Your task to perform on an android device: Open eBay Image 0: 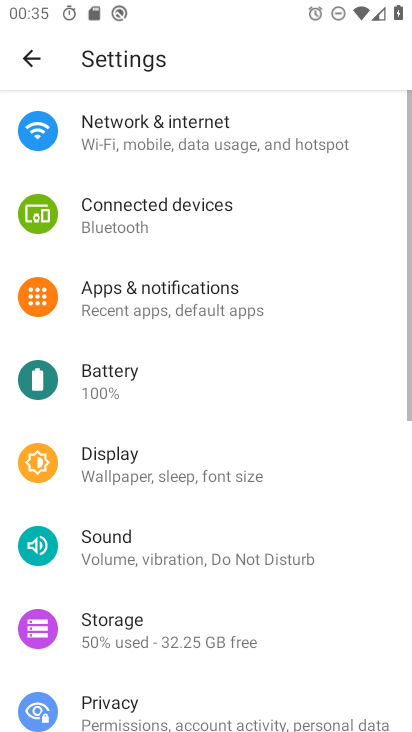
Step 0: press home button
Your task to perform on an android device: Open eBay Image 1: 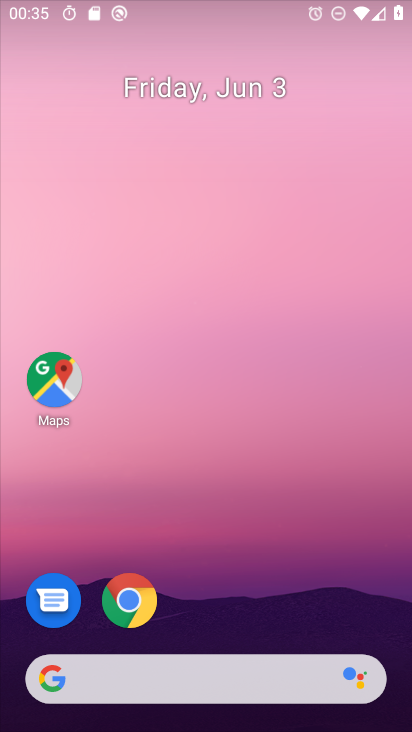
Step 1: drag from (254, 621) to (277, 66)
Your task to perform on an android device: Open eBay Image 2: 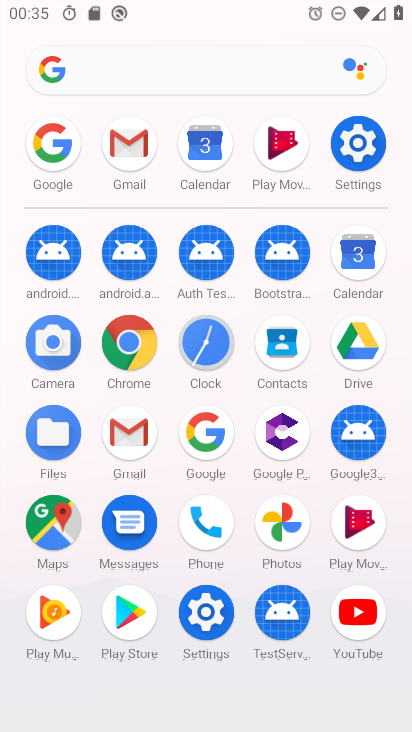
Step 2: click (50, 135)
Your task to perform on an android device: Open eBay Image 3: 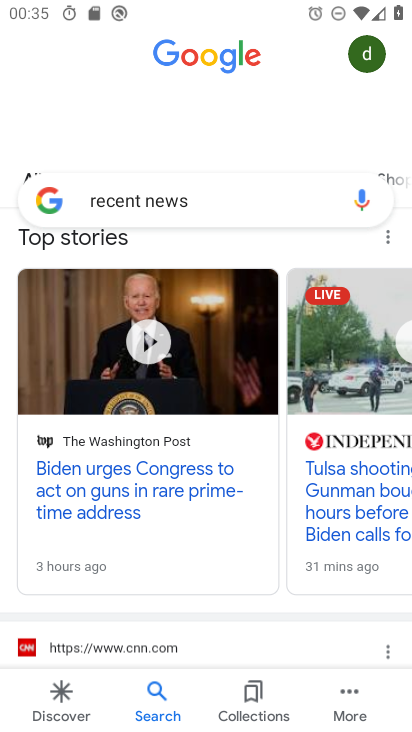
Step 3: click (228, 200)
Your task to perform on an android device: Open eBay Image 4: 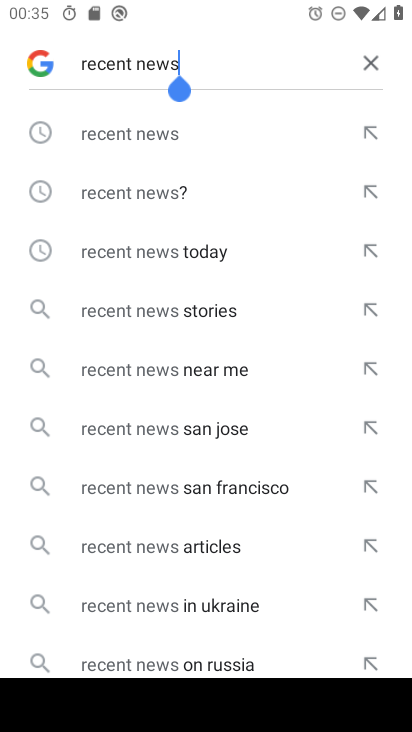
Step 4: click (364, 56)
Your task to perform on an android device: Open eBay Image 5: 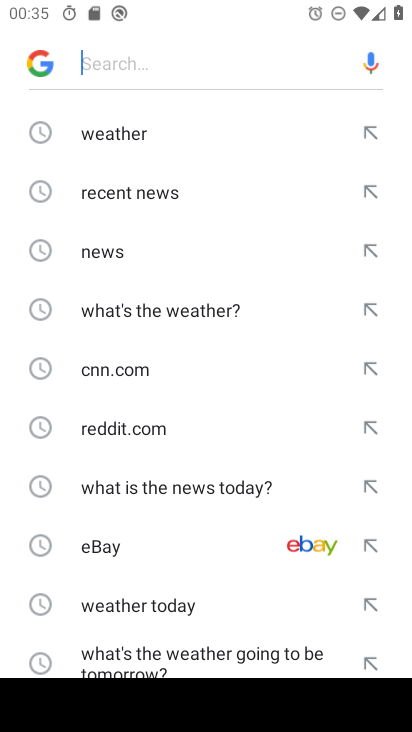
Step 5: click (144, 546)
Your task to perform on an android device: Open eBay Image 6: 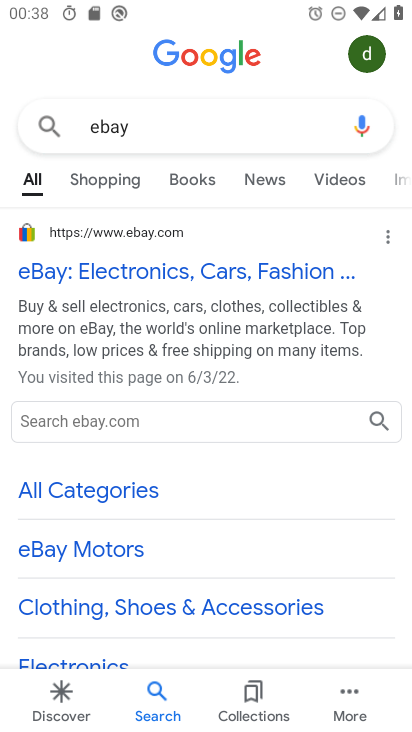
Step 6: task complete